Your task to perform on an android device: delete a single message in the gmail app Image 0: 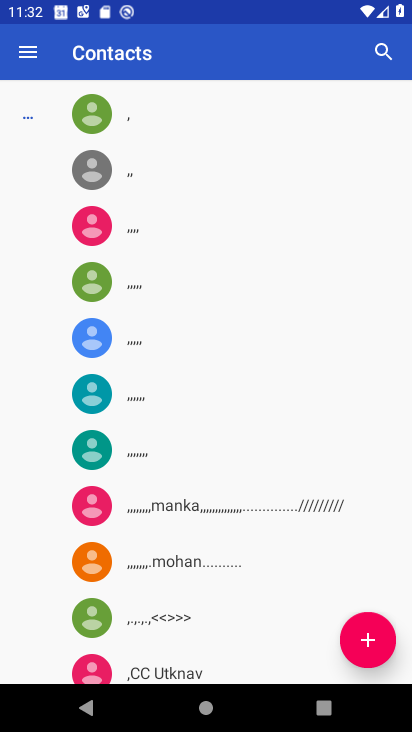
Step 0: press home button
Your task to perform on an android device: delete a single message in the gmail app Image 1: 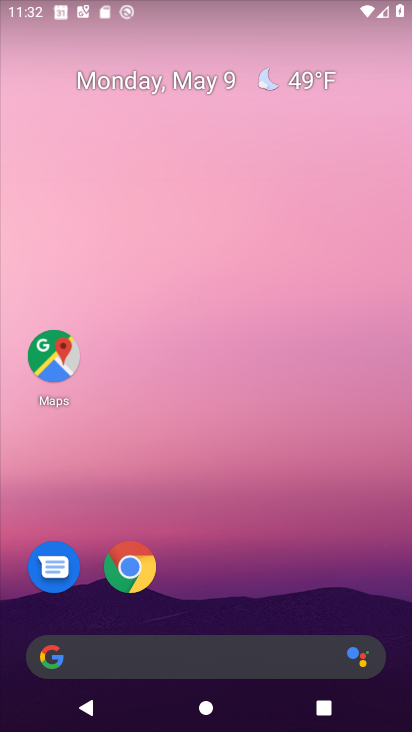
Step 1: drag from (224, 637) to (219, 271)
Your task to perform on an android device: delete a single message in the gmail app Image 2: 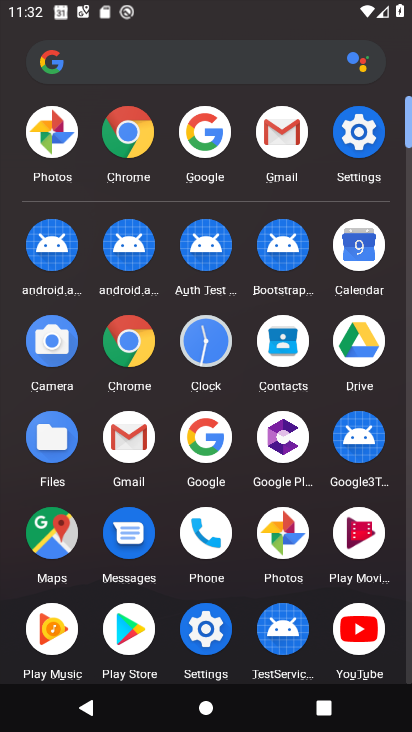
Step 2: click (288, 139)
Your task to perform on an android device: delete a single message in the gmail app Image 3: 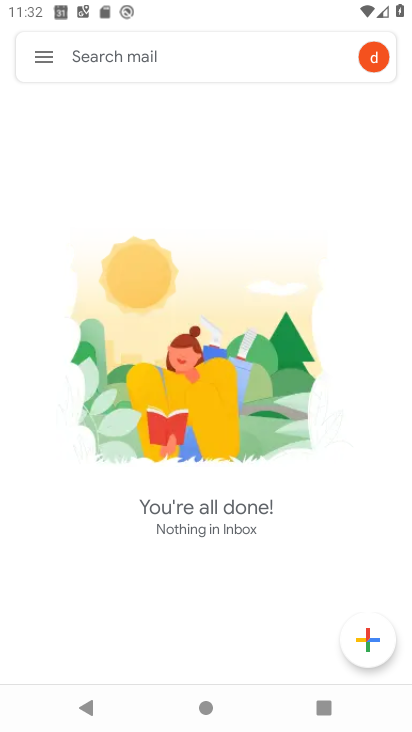
Step 3: task complete